Your task to perform on an android device: turn pop-ups on in chrome Image 0: 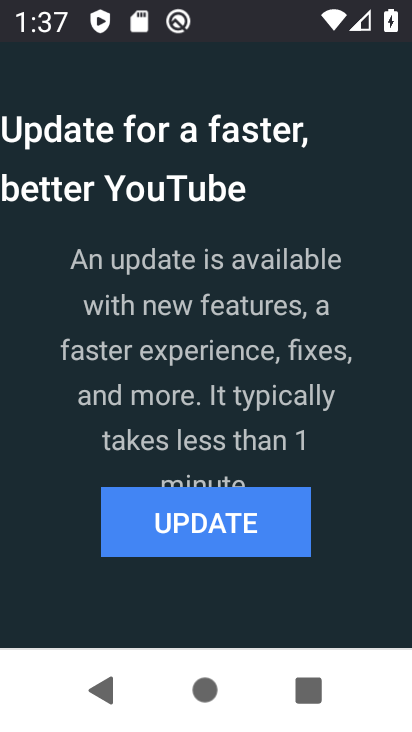
Step 0: press home button
Your task to perform on an android device: turn pop-ups on in chrome Image 1: 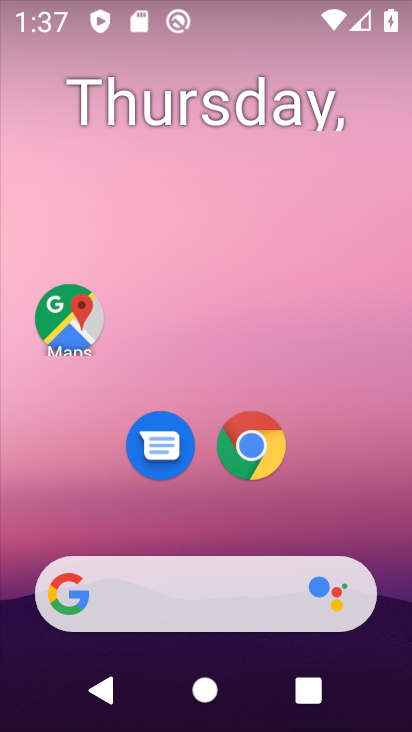
Step 1: click (254, 440)
Your task to perform on an android device: turn pop-ups on in chrome Image 2: 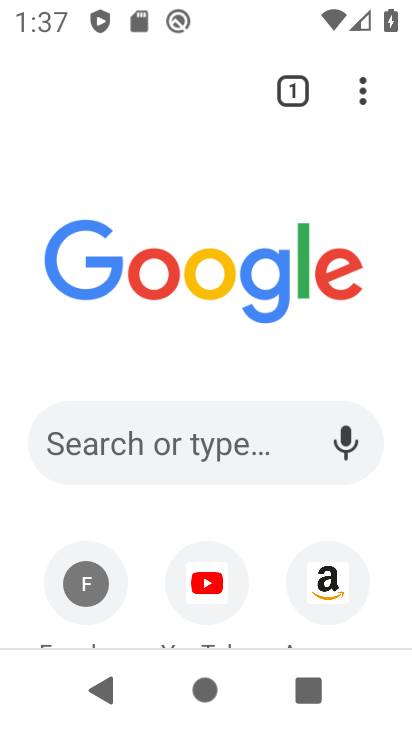
Step 2: click (365, 94)
Your task to perform on an android device: turn pop-ups on in chrome Image 3: 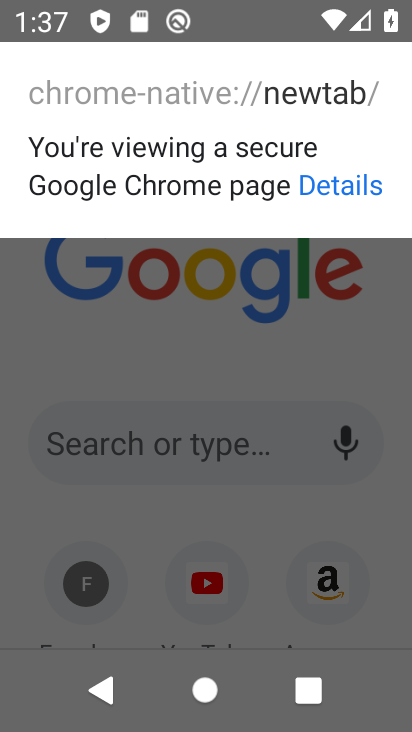
Step 3: press back button
Your task to perform on an android device: turn pop-ups on in chrome Image 4: 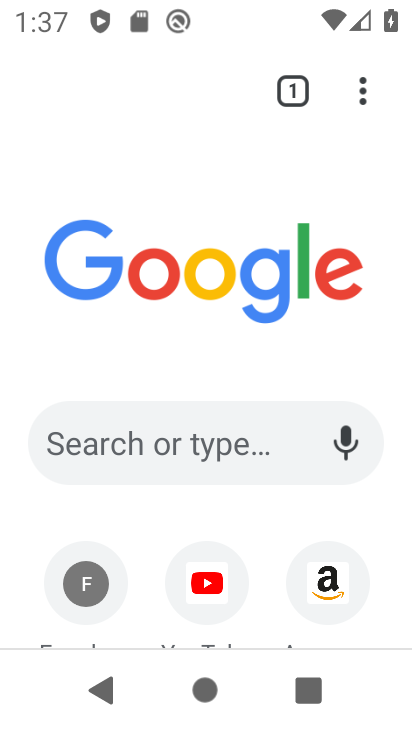
Step 4: click (362, 91)
Your task to perform on an android device: turn pop-ups on in chrome Image 5: 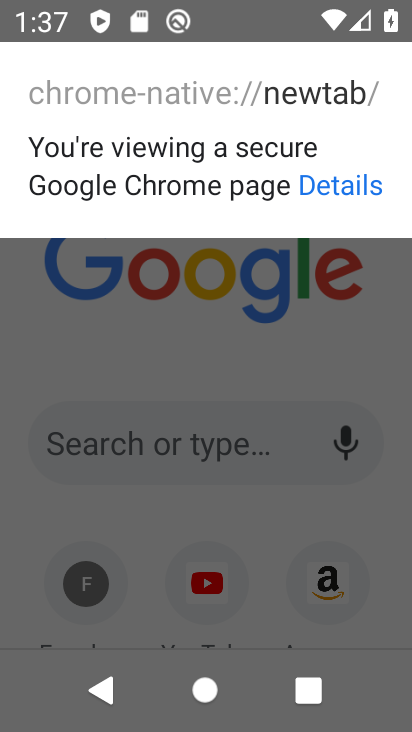
Step 5: press back button
Your task to perform on an android device: turn pop-ups on in chrome Image 6: 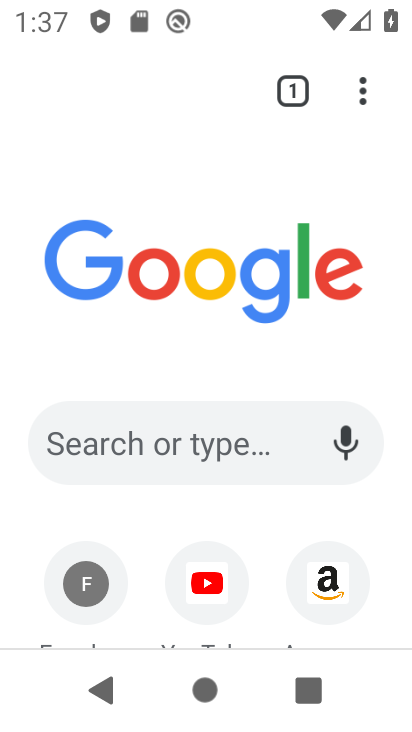
Step 6: click (355, 86)
Your task to perform on an android device: turn pop-ups on in chrome Image 7: 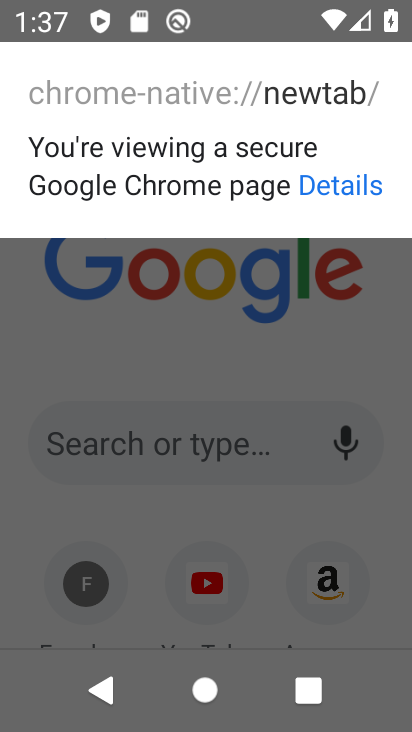
Step 7: press back button
Your task to perform on an android device: turn pop-ups on in chrome Image 8: 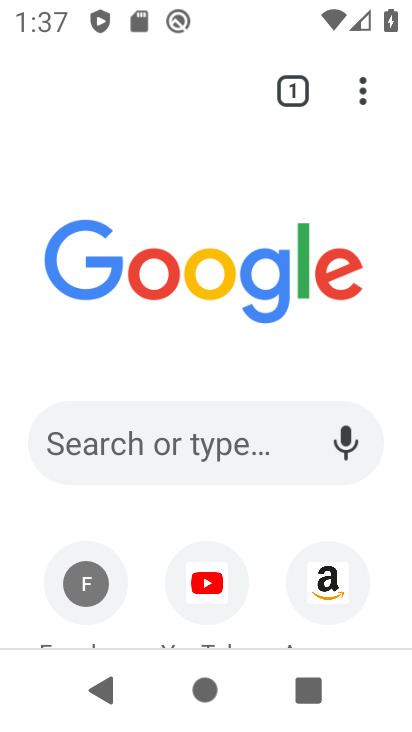
Step 8: click (360, 90)
Your task to perform on an android device: turn pop-ups on in chrome Image 9: 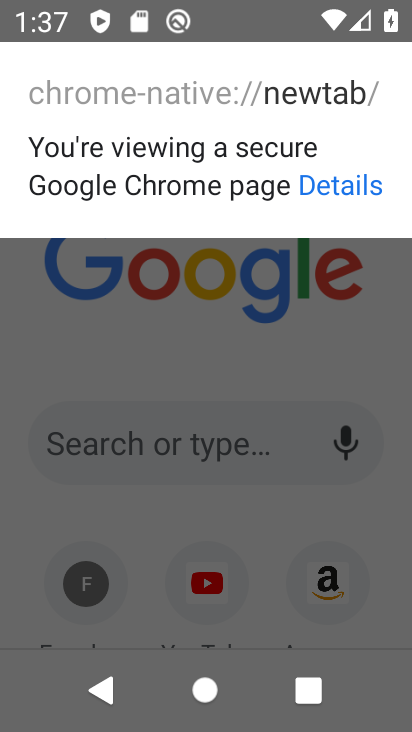
Step 9: press back button
Your task to perform on an android device: turn pop-ups on in chrome Image 10: 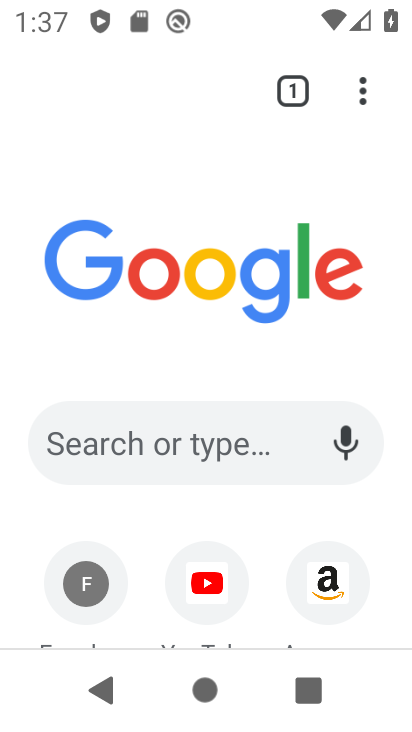
Step 10: click (352, 87)
Your task to perform on an android device: turn pop-ups on in chrome Image 11: 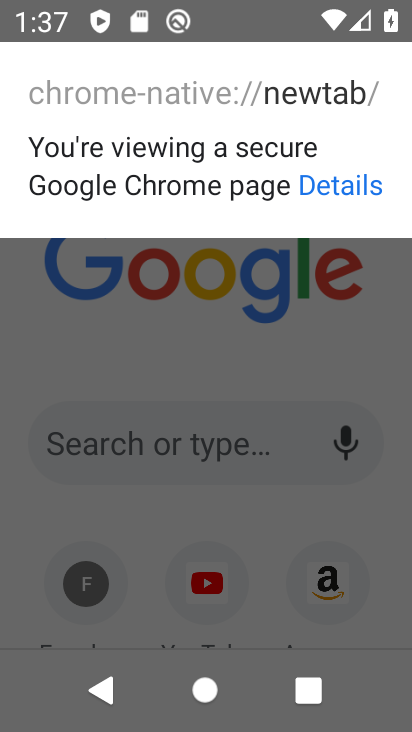
Step 11: press back button
Your task to perform on an android device: turn pop-ups on in chrome Image 12: 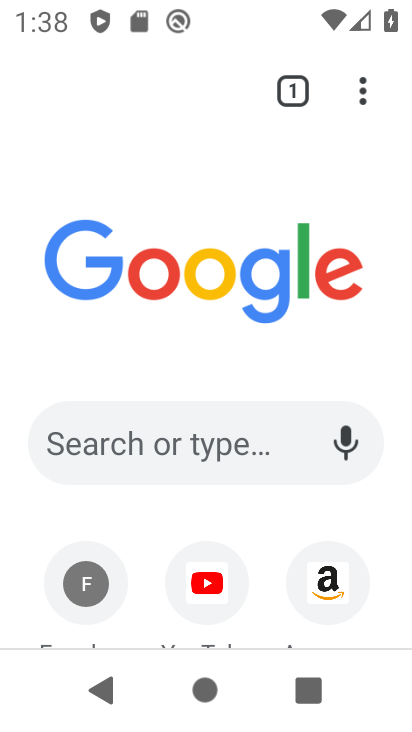
Step 12: click (366, 90)
Your task to perform on an android device: turn pop-ups on in chrome Image 13: 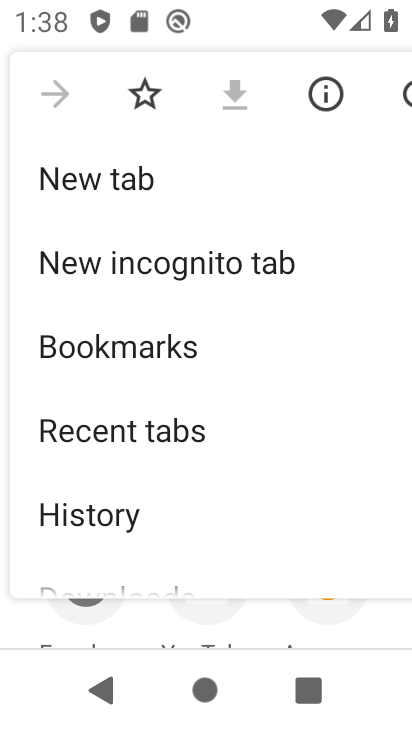
Step 13: drag from (195, 489) to (353, 73)
Your task to perform on an android device: turn pop-ups on in chrome Image 14: 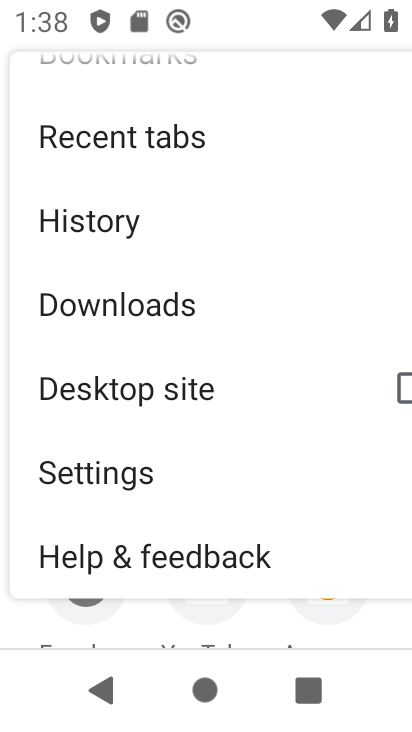
Step 14: click (127, 468)
Your task to perform on an android device: turn pop-ups on in chrome Image 15: 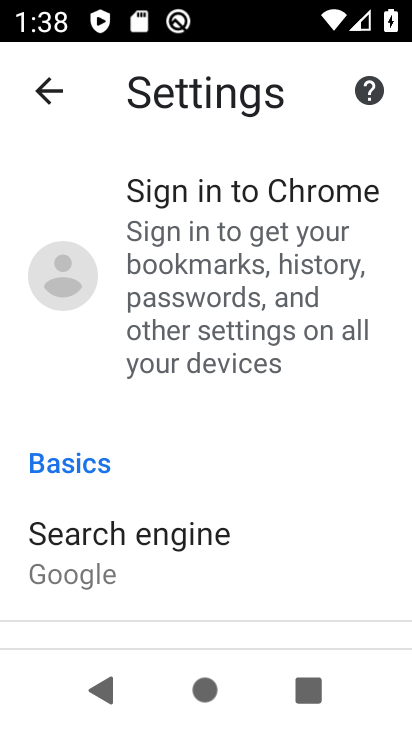
Step 15: drag from (93, 566) to (229, 193)
Your task to perform on an android device: turn pop-ups on in chrome Image 16: 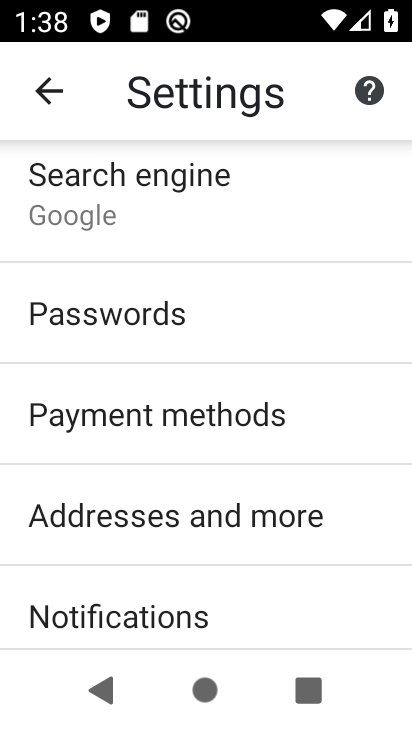
Step 16: drag from (131, 589) to (263, 221)
Your task to perform on an android device: turn pop-ups on in chrome Image 17: 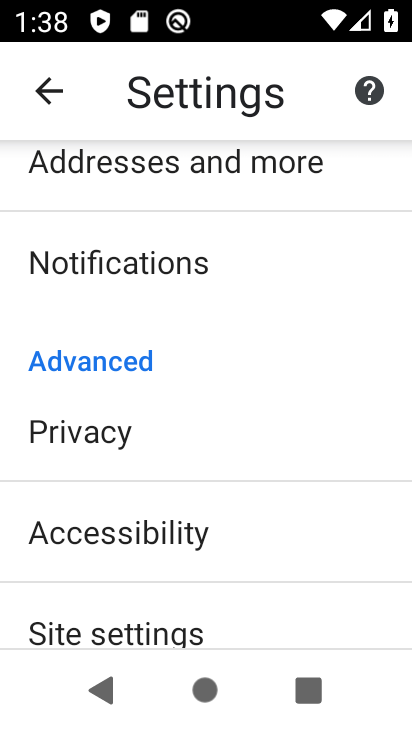
Step 17: click (108, 637)
Your task to perform on an android device: turn pop-ups on in chrome Image 18: 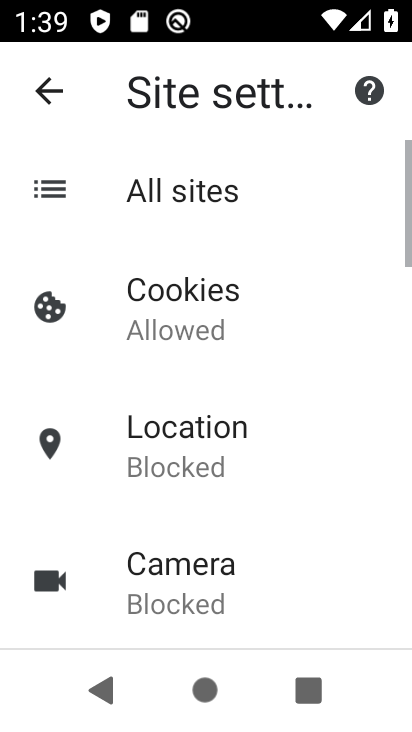
Step 18: drag from (50, 596) to (289, 156)
Your task to perform on an android device: turn pop-ups on in chrome Image 19: 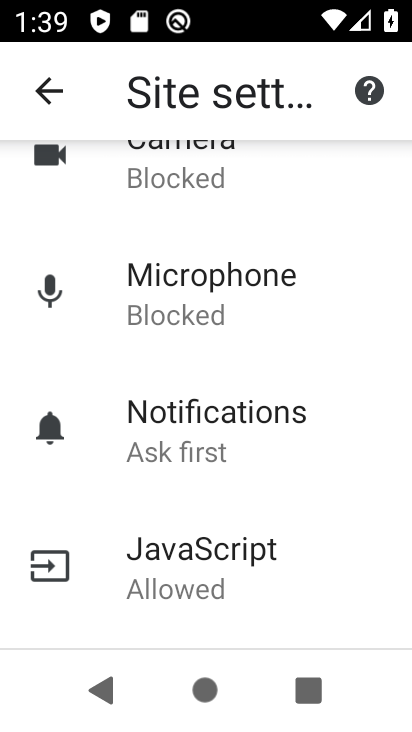
Step 19: drag from (122, 547) to (221, 238)
Your task to perform on an android device: turn pop-ups on in chrome Image 20: 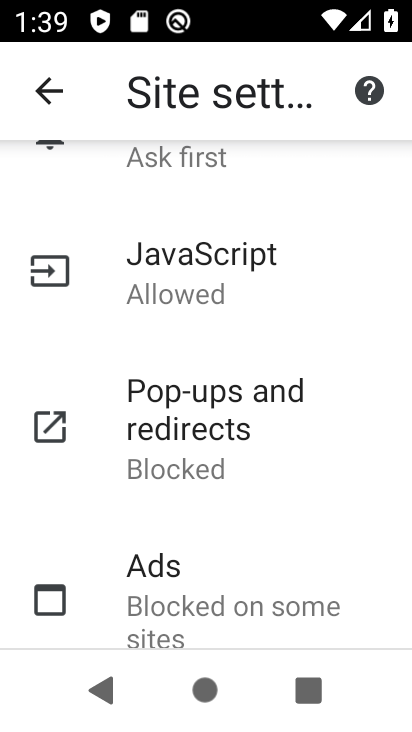
Step 20: click (180, 405)
Your task to perform on an android device: turn pop-ups on in chrome Image 21: 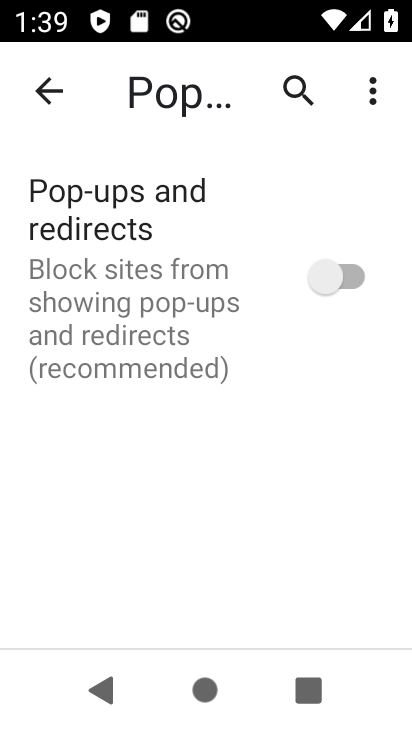
Step 21: click (311, 292)
Your task to perform on an android device: turn pop-ups on in chrome Image 22: 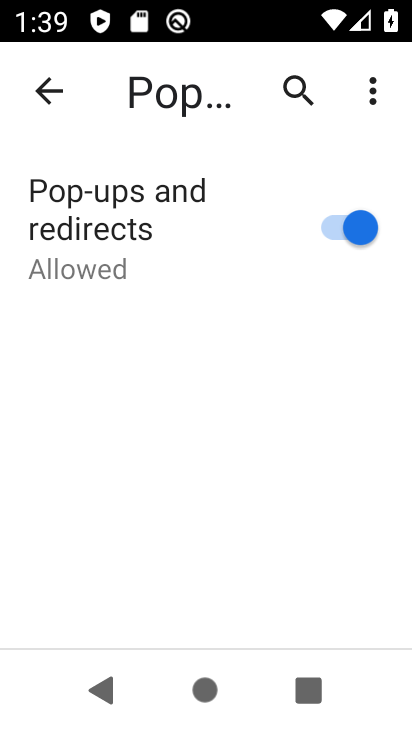
Step 22: task complete